Your task to perform on an android device: add a contact Image 0: 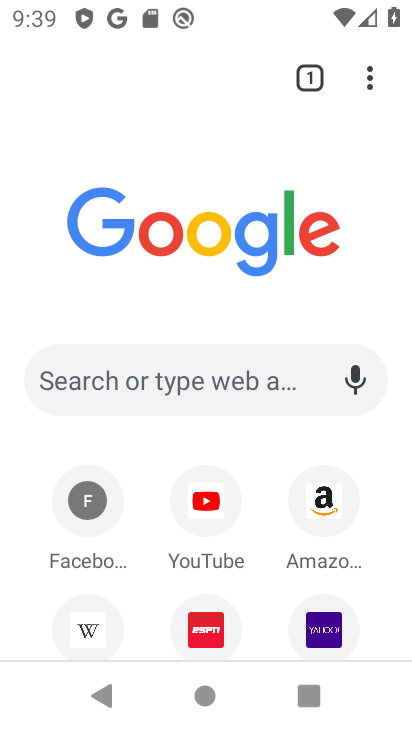
Step 0: press home button
Your task to perform on an android device: add a contact Image 1: 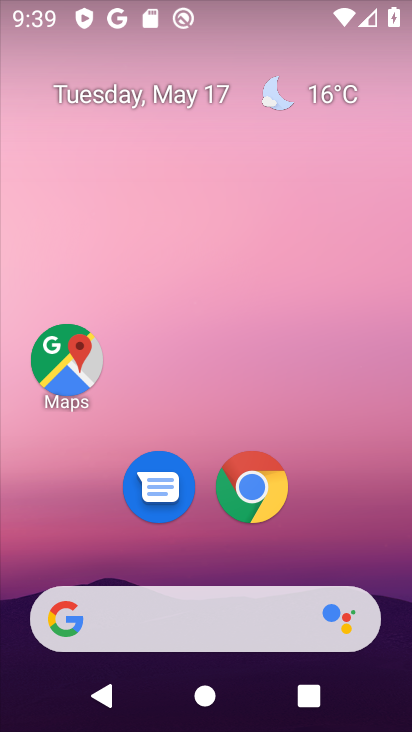
Step 1: drag from (409, 307) to (411, 188)
Your task to perform on an android device: add a contact Image 2: 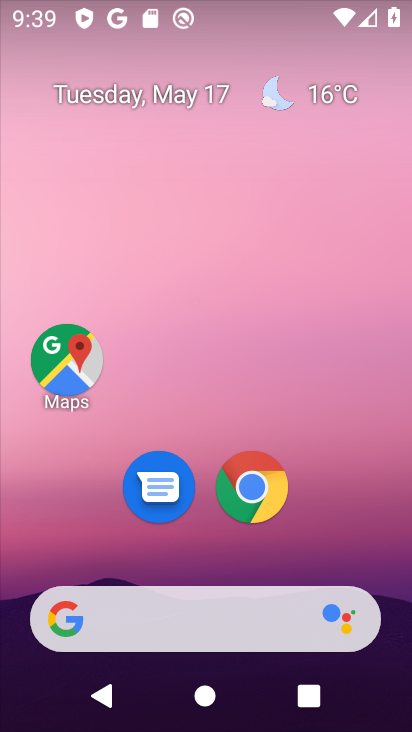
Step 2: drag from (402, 584) to (403, 253)
Your task to perform on an android device: add a contact Image 3: 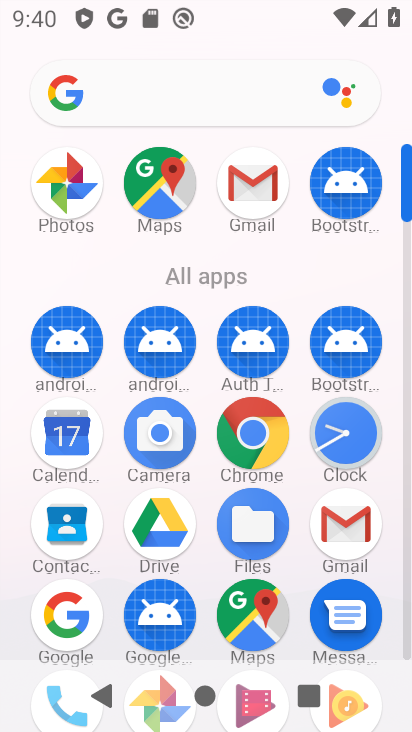
Step 3: click (73, 541)
Your task to perform on an android device: add a contact Image 4: 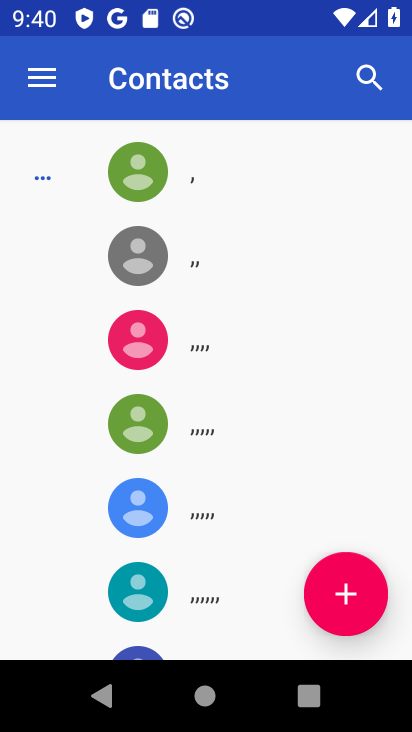
Step 4: click (344, 590)
Your task to perform on an android device: add a contact Image 5: 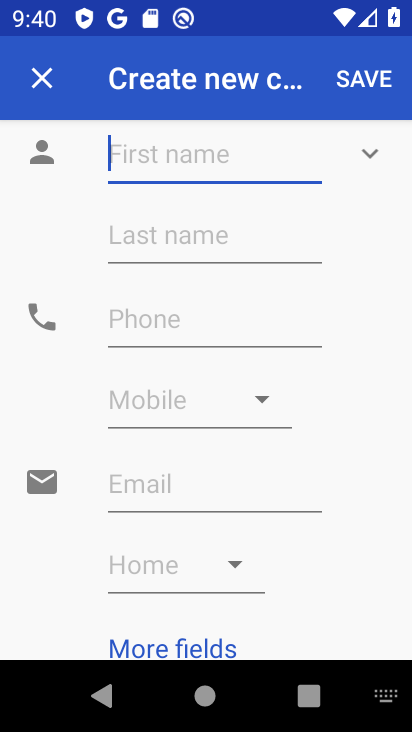
Step 5: type "sdfnm"
Your task to perform on an android device: add a contact Image 6: 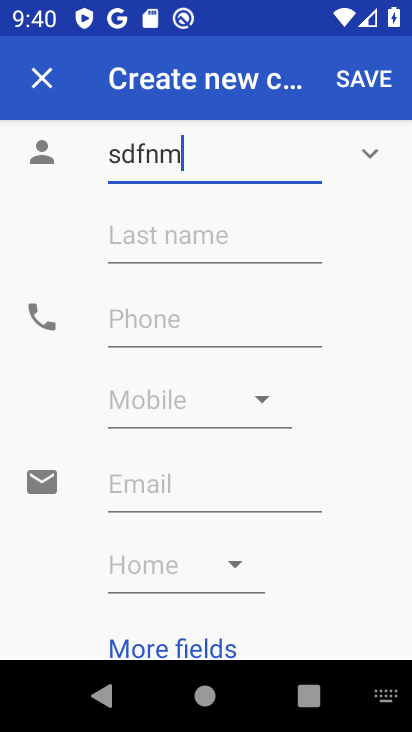
Step 6: click (189, 243)
Your task to perform on an android device: add a contact Image 7: 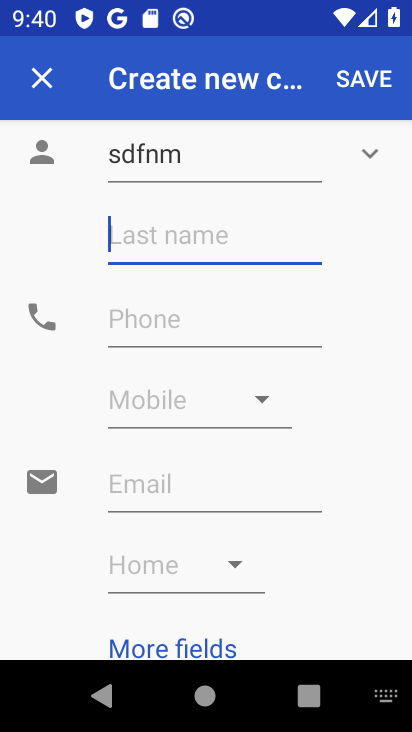
Step 7: type "ghugvbn"
Your task to perform on an android device: add a contact Image 8: 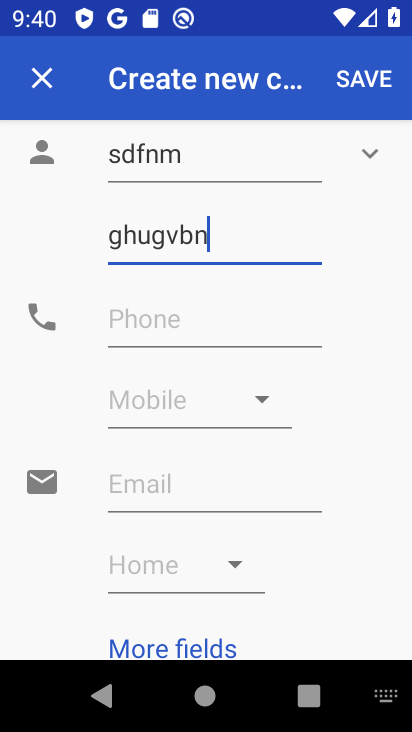
Step 8: click (187, 335)
Your task to perform on an android device: add a contact Image 9: 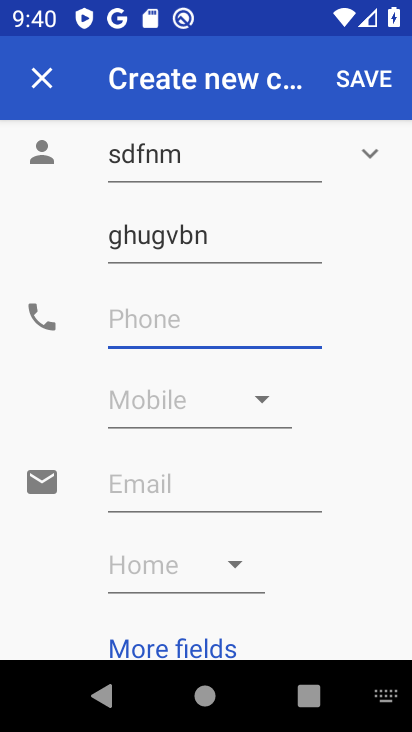
Step 9: type "23456788745"
Your task to perform on an android device: add a contact Image 10: 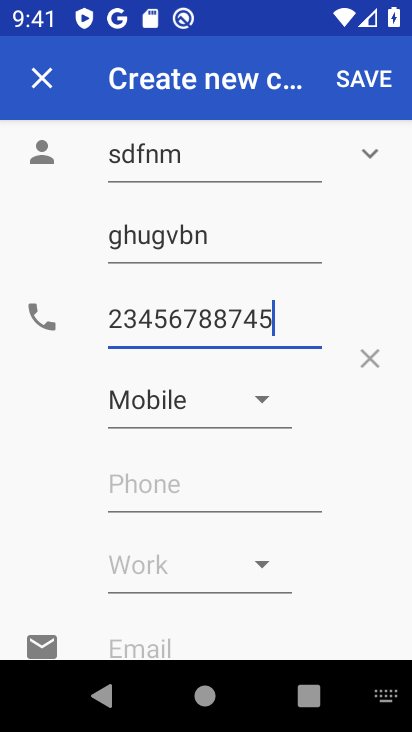
Step 10: click (351, 73)
Your task to perform on an android device: add a contact Image 11: 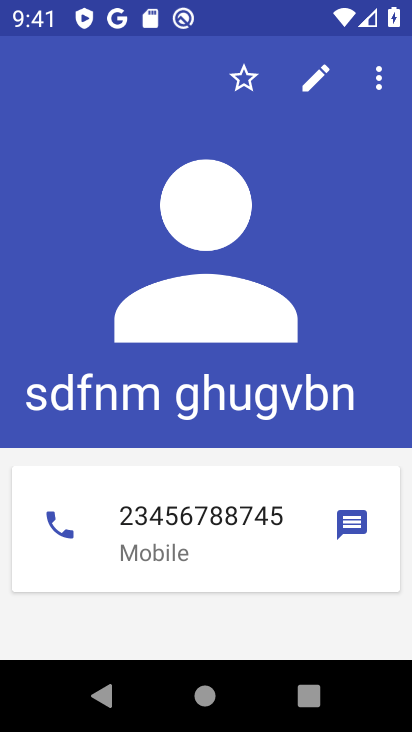
Step 11: task complete